Your task to perform on an android device: toggle translation in the chrome app Image 0: 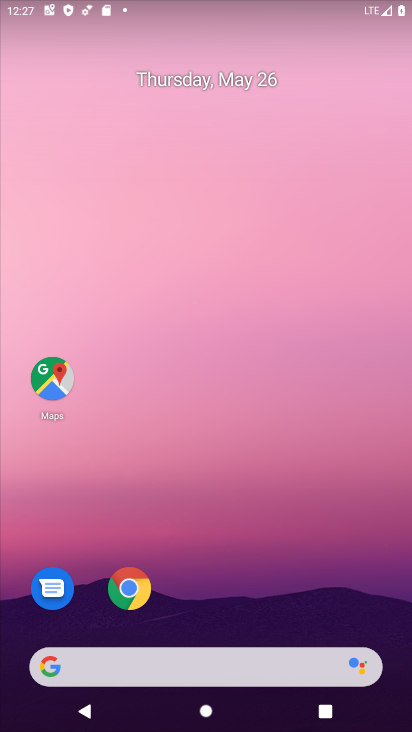
Step 0: drag from (225, 521) to (143, 3)
Your task to perform on an android device: toggle translation in the chrome app Image 1: 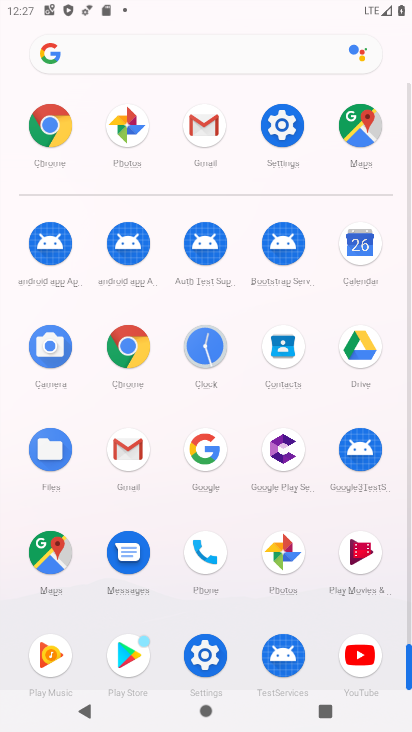
Step 1: drag from (9, 550) to (11, 244)
Your task to perform on an android device: toggle translation in the chrome app Image 2: 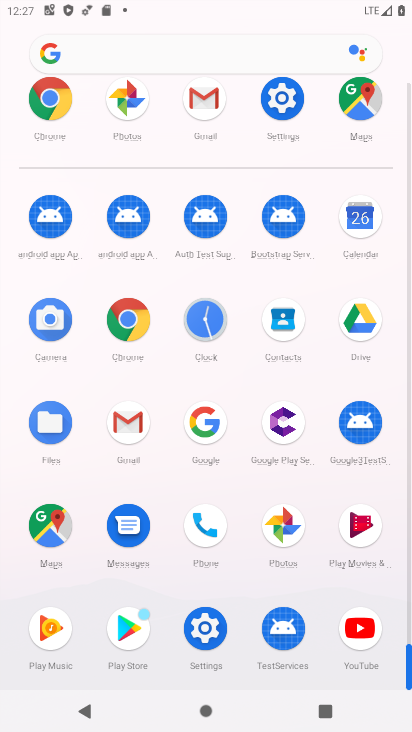
Step 2: click (127, 313)
Your task to perform on an android device: toggle translation in the chrome app Image 3: 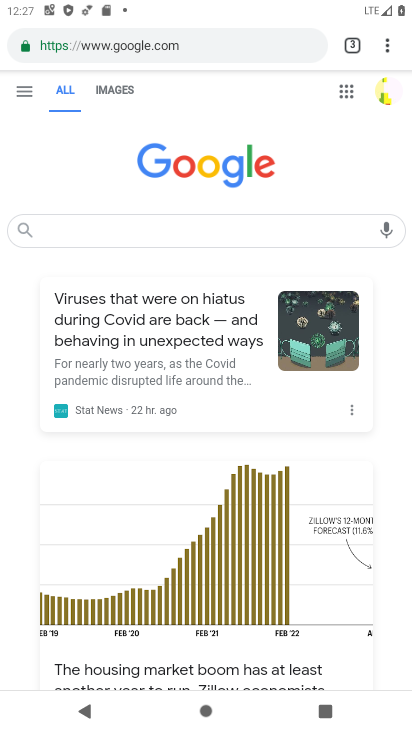
Step 3: drag from (386, 31) to (231, 502)
Your task to perform on an android device: toggle translation in the chrome app Image 4: 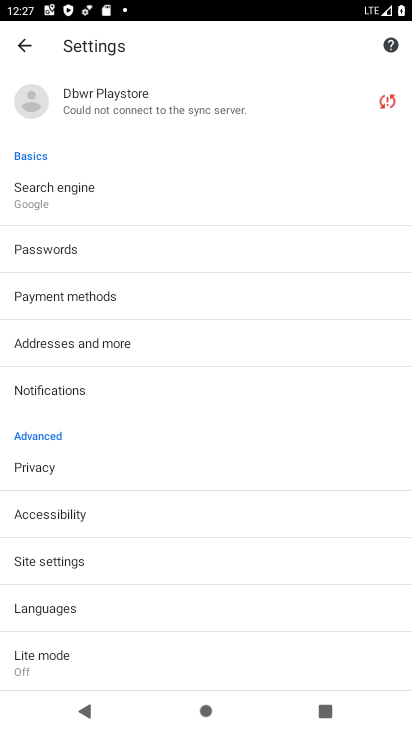
Step 4: drag from (179, 568) to (203, 184)
Your task to perform on an android device: toggle translation in the chrome app Image 5: 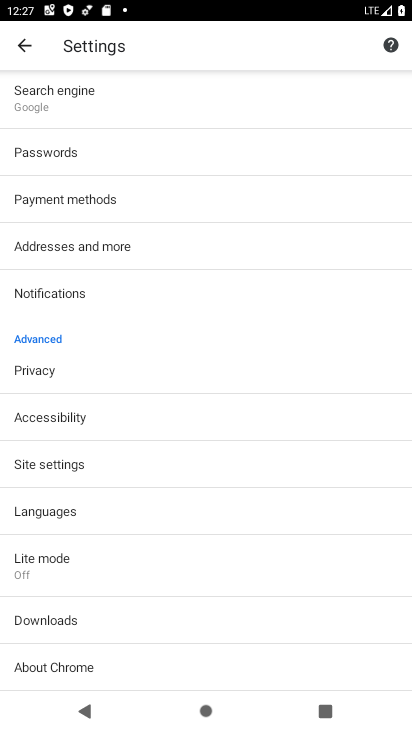
Step 5: click (79, 507)
Your task to perform on an android device: toggle translation in the chrome app Image 6: 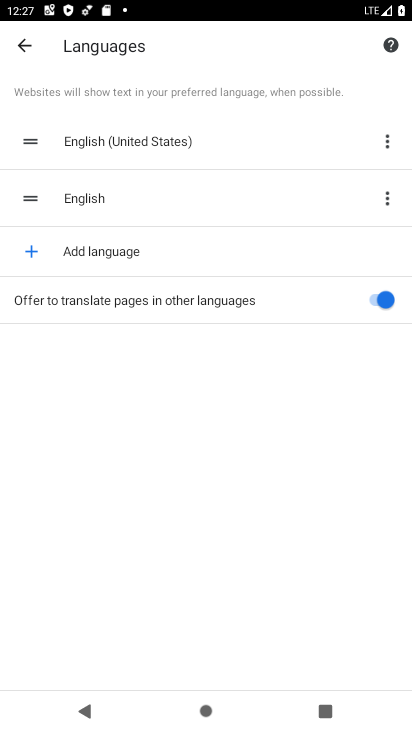
Step 6: click (378, 299)
Your task to perform on an android device: toggle translation in the chrome app Image 7: 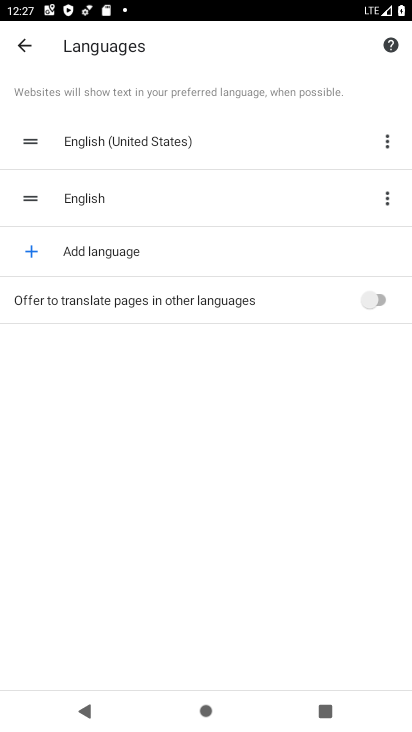
Step 7: task complete